Your task to perform on an android device: Open the calendar and show me this week's events Image 0: 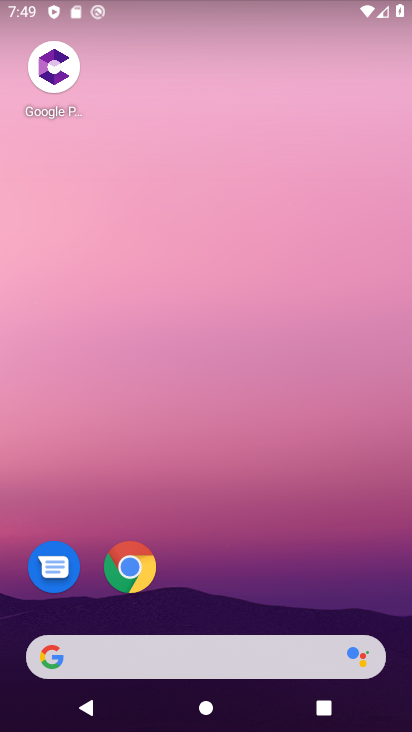
Step 0: drag from (251, 716) to (236, 329)
Your task to perform on an android device: Open the calendar and show me this week's events Image 1: 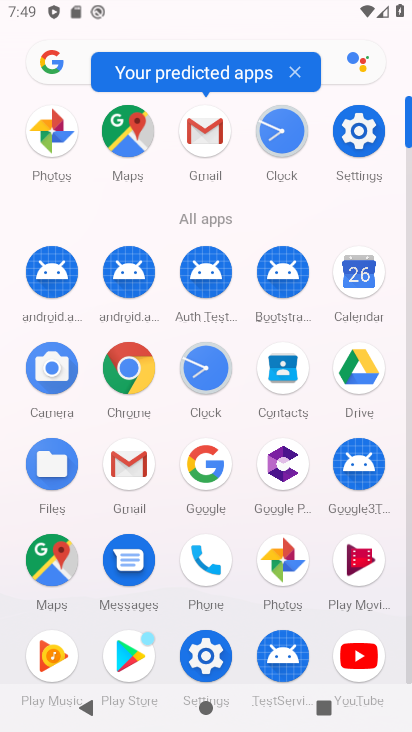
Step 1: click (366, 272)
Your task to perform on an android device: Open the calendar and show me this week's events Image 2: 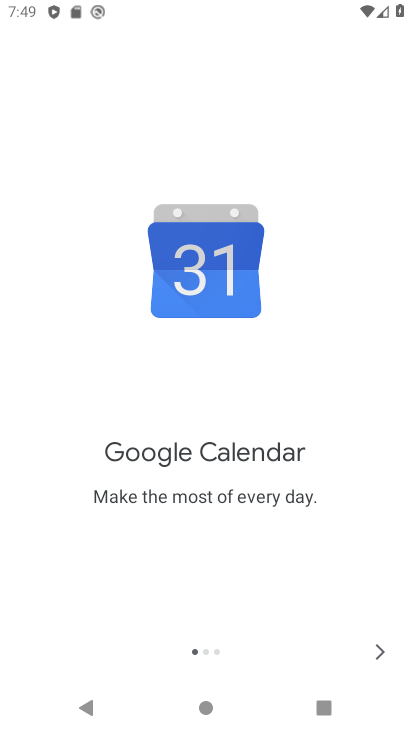
Step 2: click (370, 658)
Your task to perform on an android device: Open the calendar and show me this week's events Image 3: 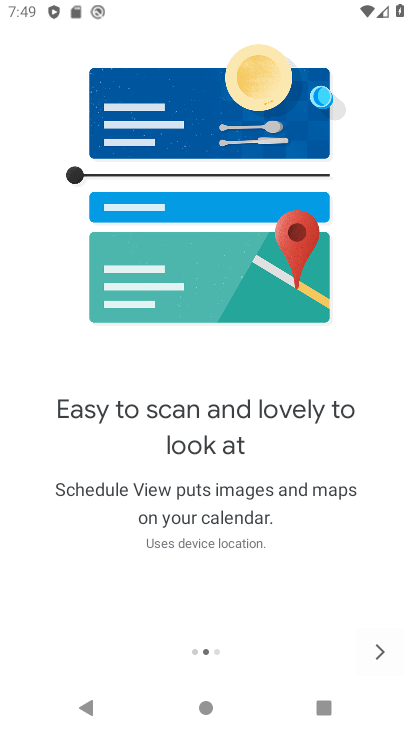
Step 3: click (370, 658)
Your task to perform on an android device: Open the calendar and show me this week's events Image 4: 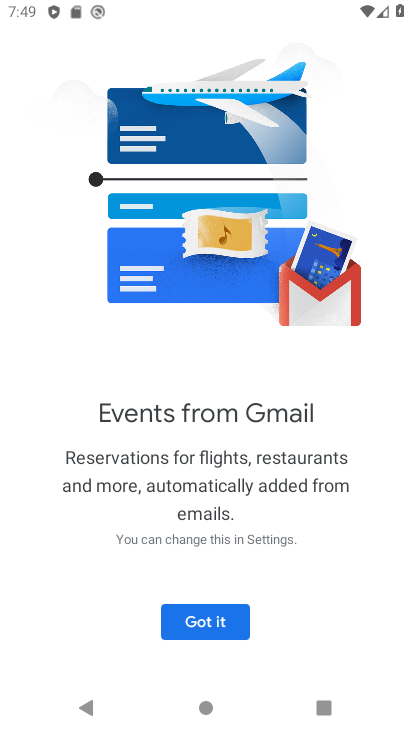
Step 4: click (209, 617)
Your task to perform on an android device: Open the calendar and show me this week's events Image 5: 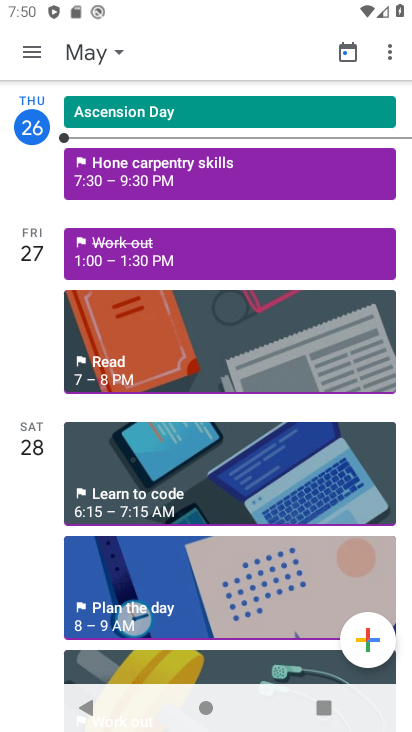
Step 5: task complete